Your task to perform on an android device: Do I have any events this weekend? Image 0: 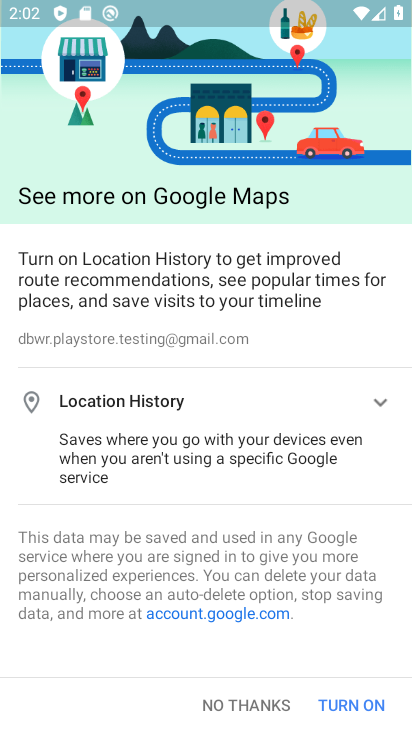
Step 0: press home button
Your task to perform on an android device: Do I have any events this weekend? Image 1: 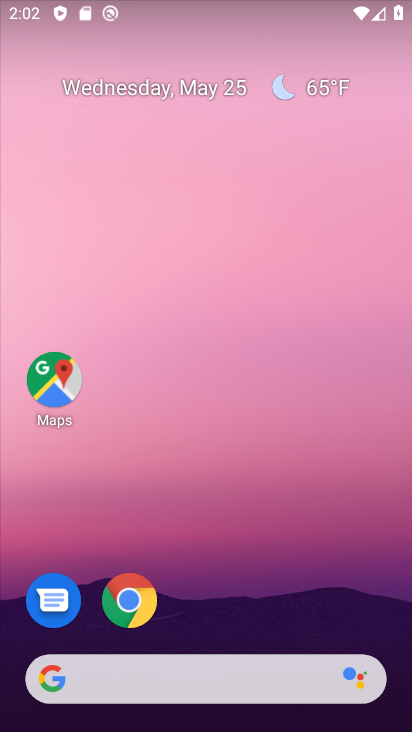
Step 1: drag from (287, 563) to (262, 136)
Your task to perform on an android device: Do I have any events this weekend? Image 2: 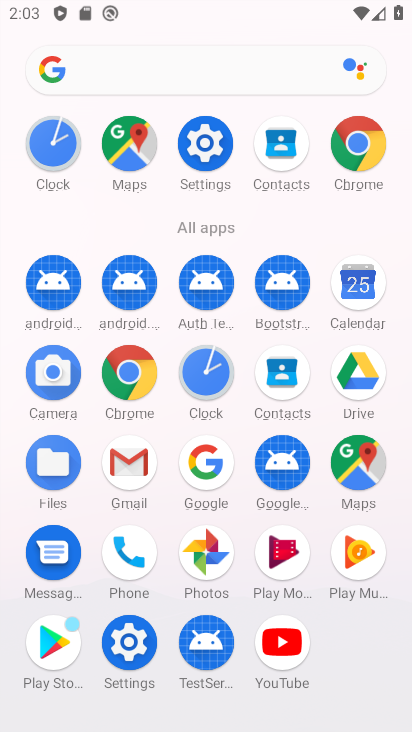
Step 2: click (351, 291)
Your task to perform on an android device: Do I have any events this weekend? Image 3: 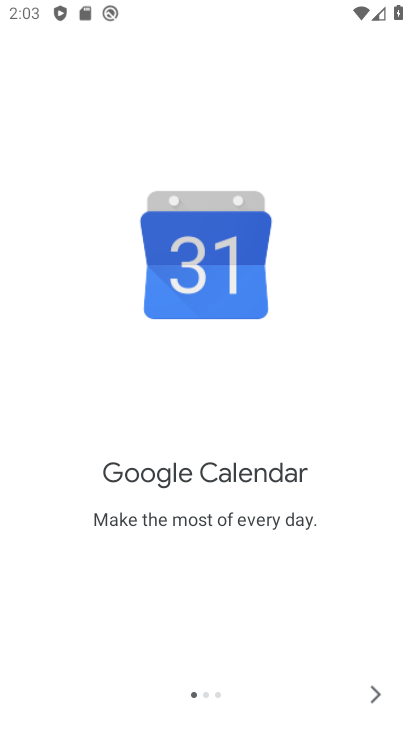
Step 3: click (364, 692)
Your task to perform on an android device: Do I have any events this weekend? Image 4: 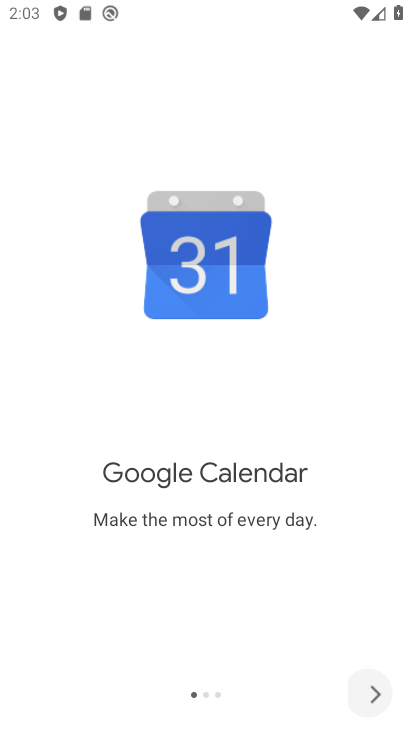
Step 4: click (365, 691)
Your task to perform on an android device: Do I have any events this weekend? Image 5: 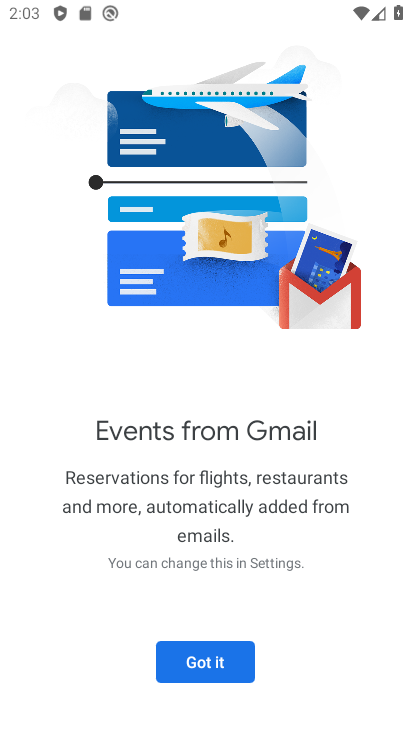
Step 5: click (241, 665)
Your task to perform on an android device: Do I have any events this weekend? Image 6: 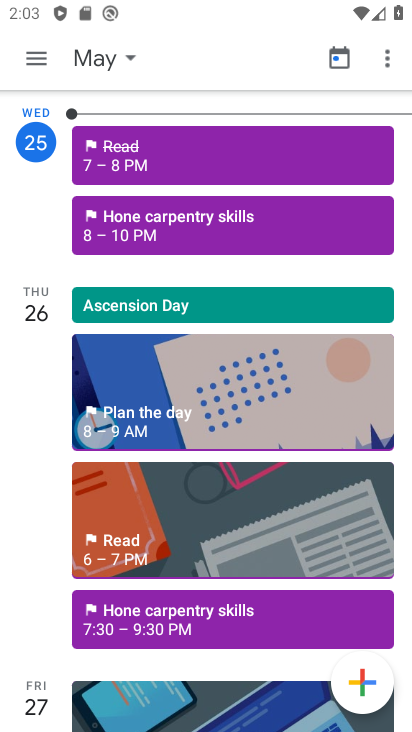
Step 6: click (43, 61)
Your task to perform on an android device: Do I have any events this weekend? Image 7: 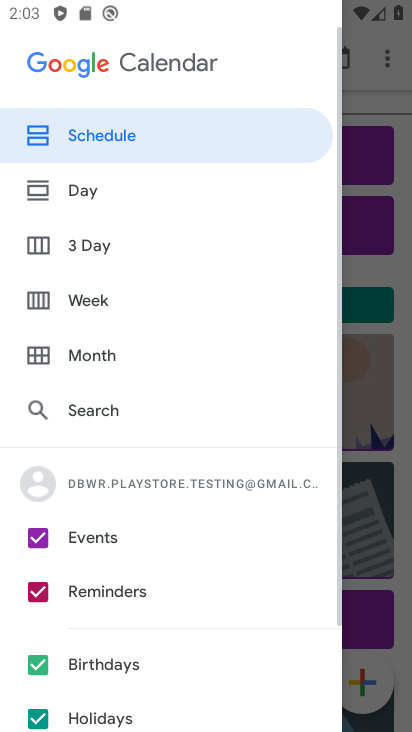
Step 7: click (102, 235)
Your task to perform on an android device: Do I have any events this weekend? Image 8: 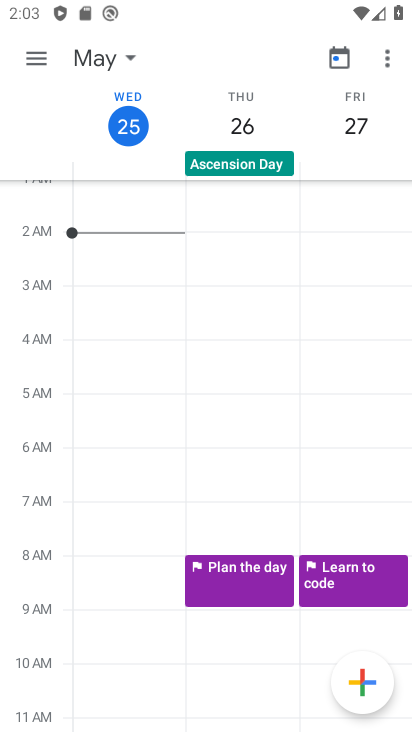
Step 8: task complete